Your task to perform on an android device: check android version Image 0: 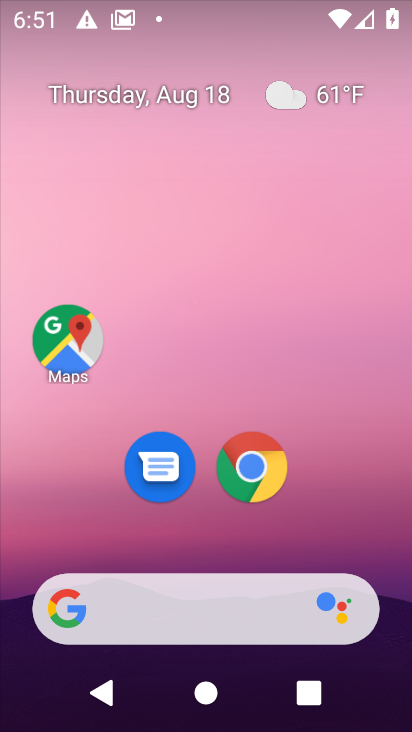
Step 0: drag from (322, 442) to (327, 183)
Your task to perform on an android device: check android version Image 1: 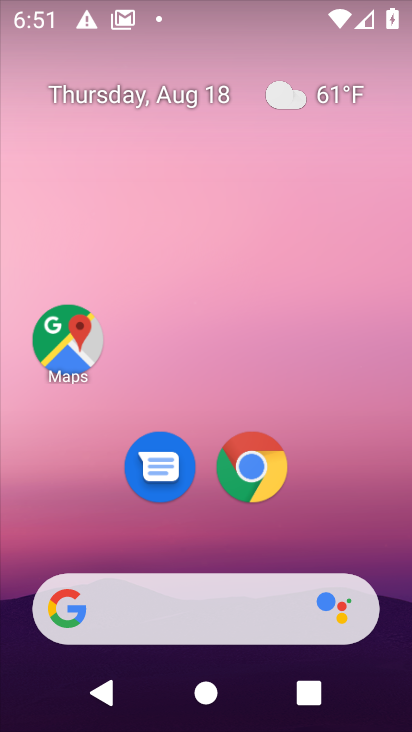
Step 1: task complete